Your task to perform on an android device: open app "HBO Max: Stream TV & Movies" (install if not already installed) Image 0: 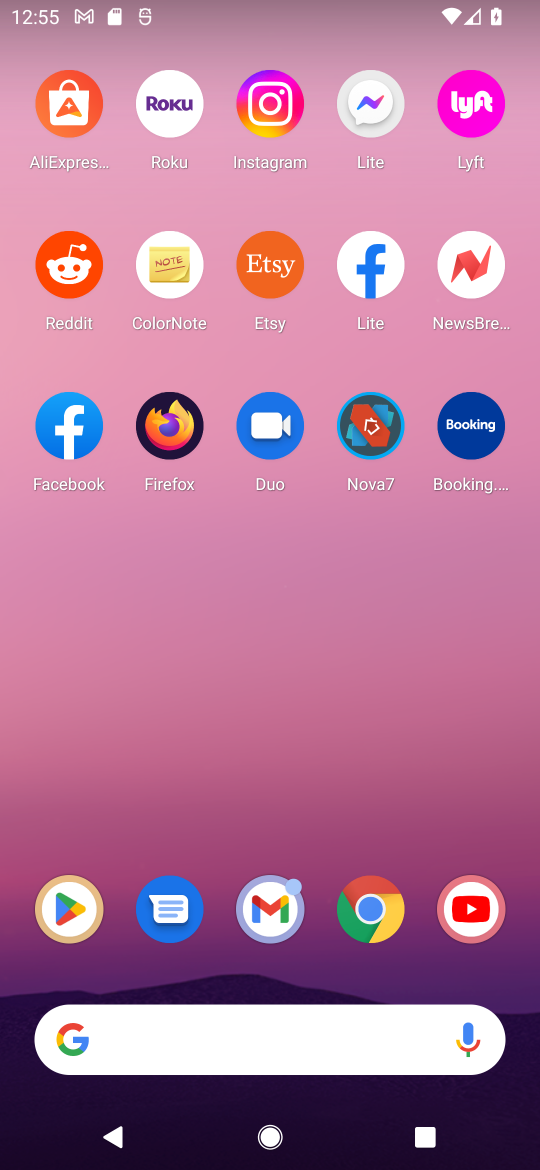
Step 0: click (71, 915)
Your task to perform on an android device: open app "HBO Max: Stream TV & Movies" (install if not already installed) Image 1: 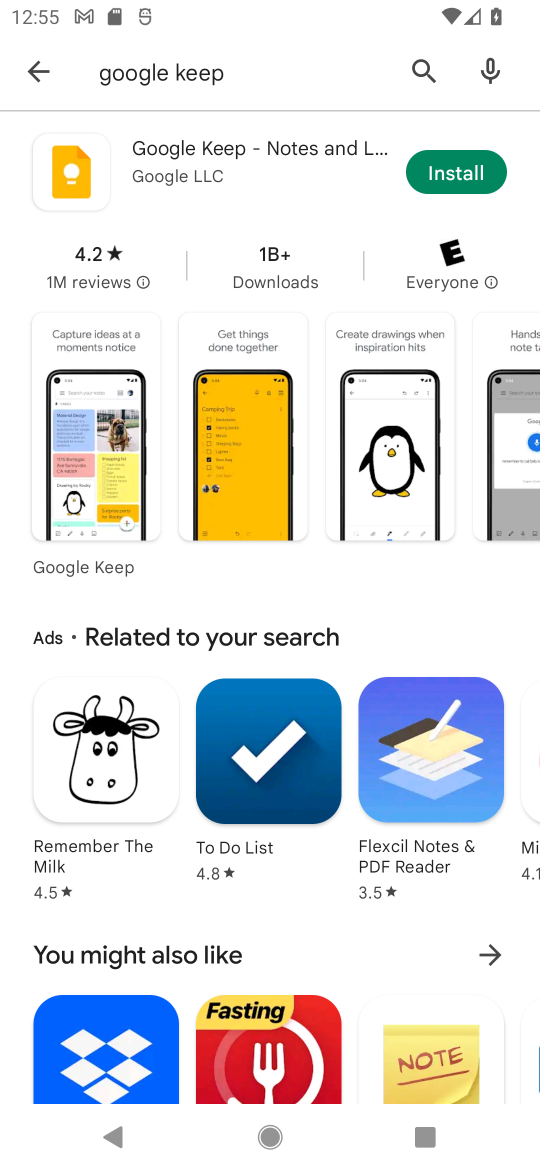
Step 1: click (415, 62)
Your task to perform on an android device: open app "HBO Max: Stream TV & Movies" (install if not already installed) Image 2: 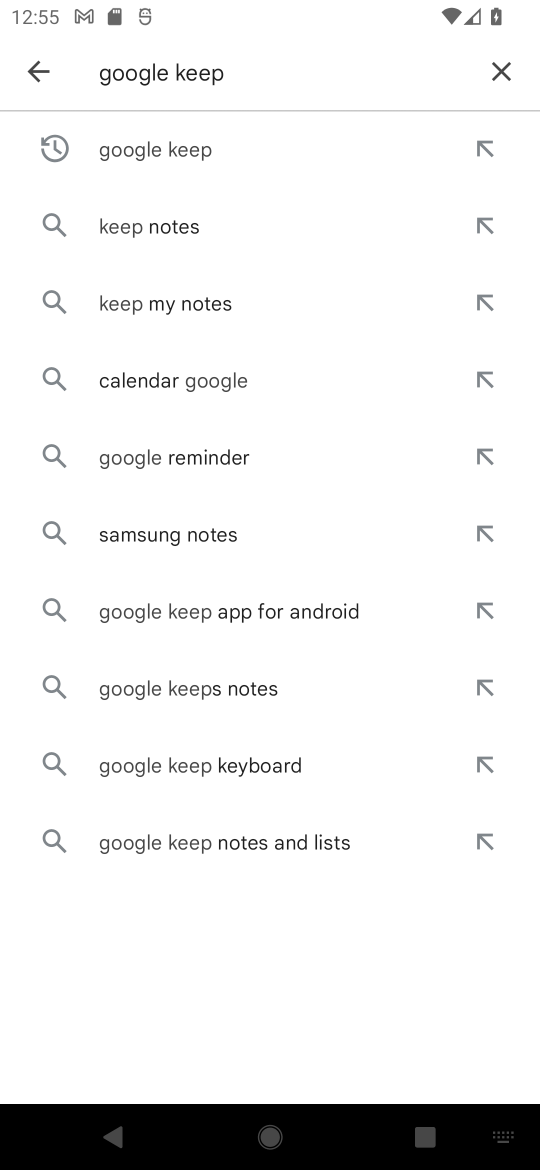
Step 2: click (498, 69)
Your task to perform on an android device: open app "HBO Max: Stream TV & Movies" (install if not already installed) Image 3: 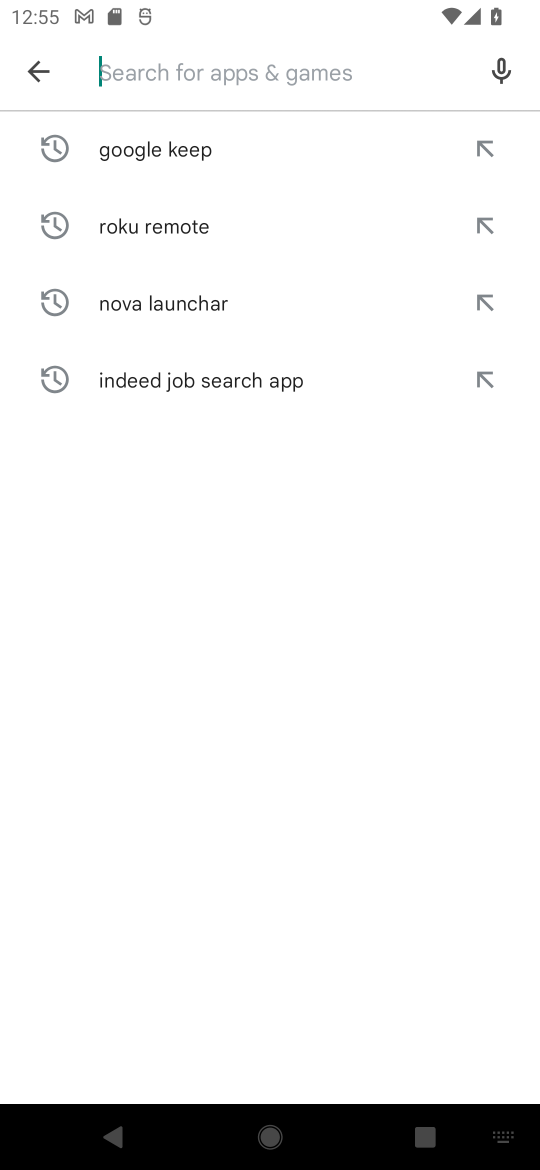
Step 3: type ""HBO Max: Stream TV & Movies"
Your task to perform on an android device: open app "HBO Max: Stream TV & Movies" (install if not already installed) Image 4: 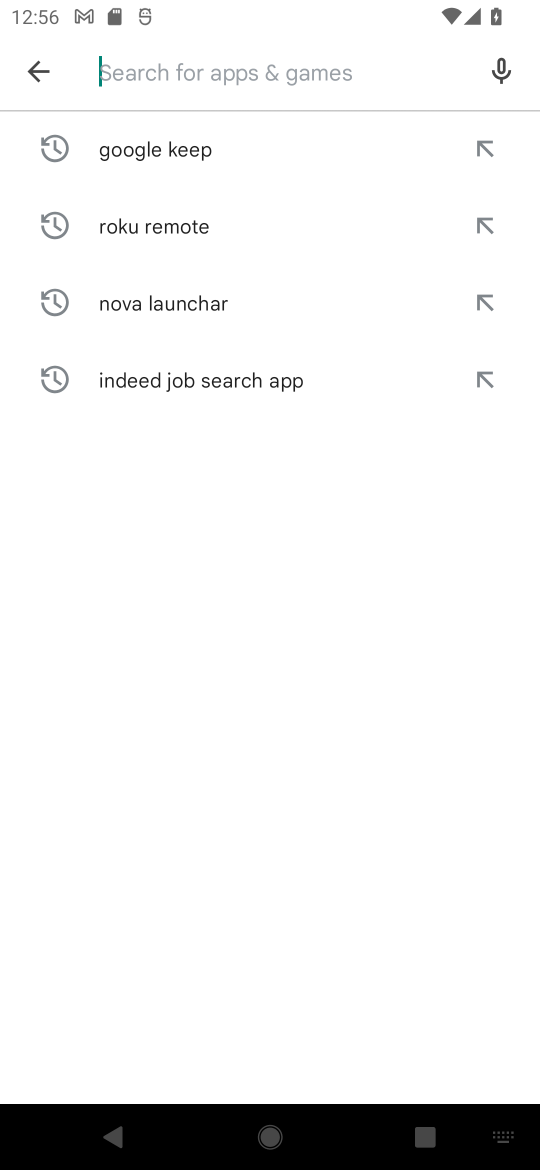
Step 4: type ""HBO Max: Stream TV & Movies"
Your task to perform on an android device: open app "HBO Max: Stream TV & Movies" (install if not already installed) Image 5: 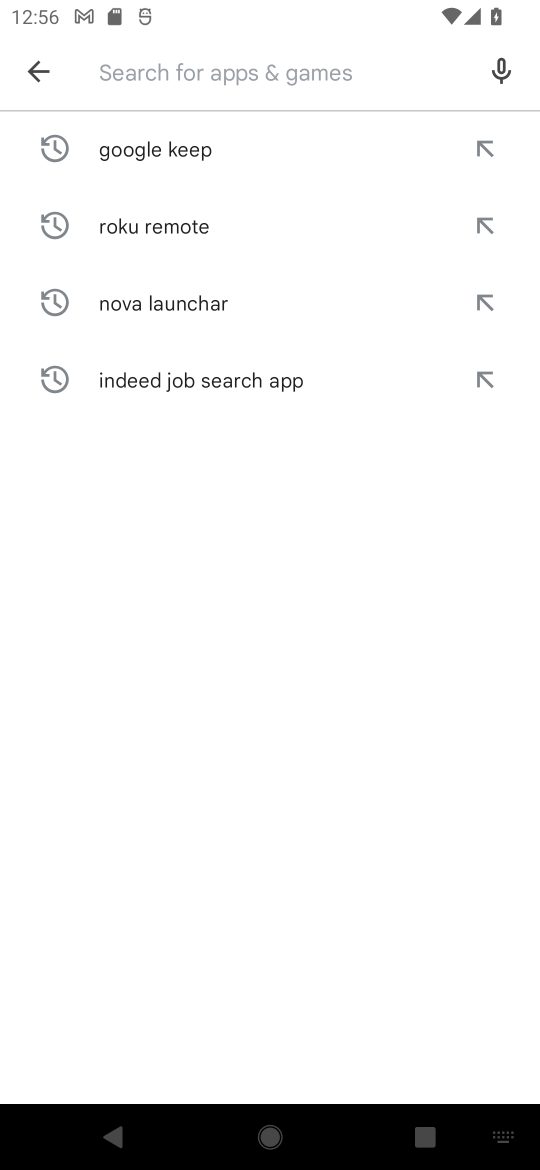
Step 5: type "HBO Max Stream TV&Movies"
Your task to perform on an android device: open app "HBO Max: Stream TV & Movies" (install if not already installed) Image 6: 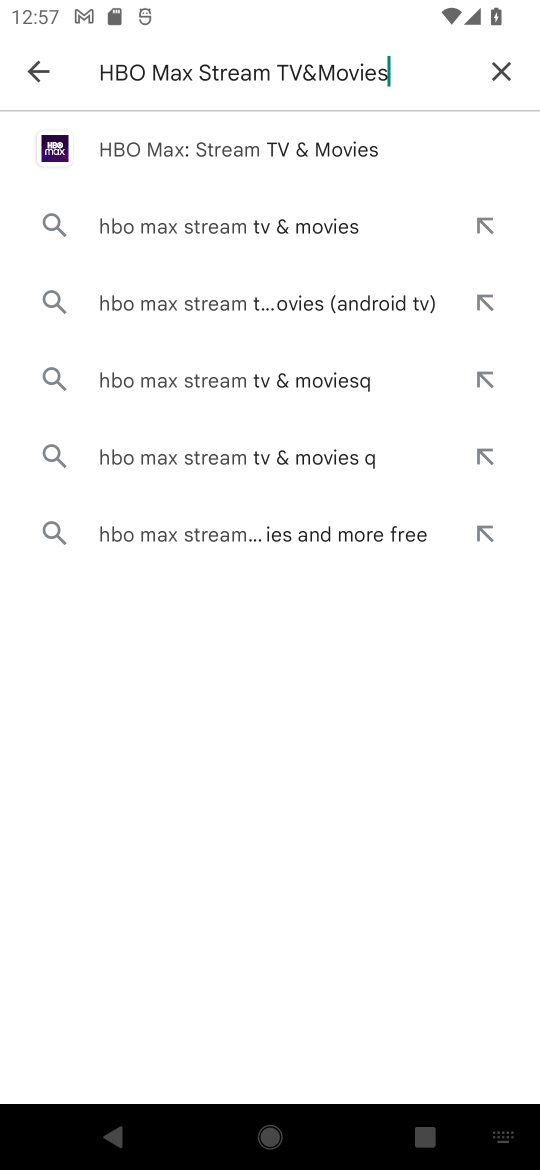
Step 6: click (306, 146)
Your task to perform on an android device: open app "HBO Max: Stream TV & Movies" (install if not already installed) Image 7: 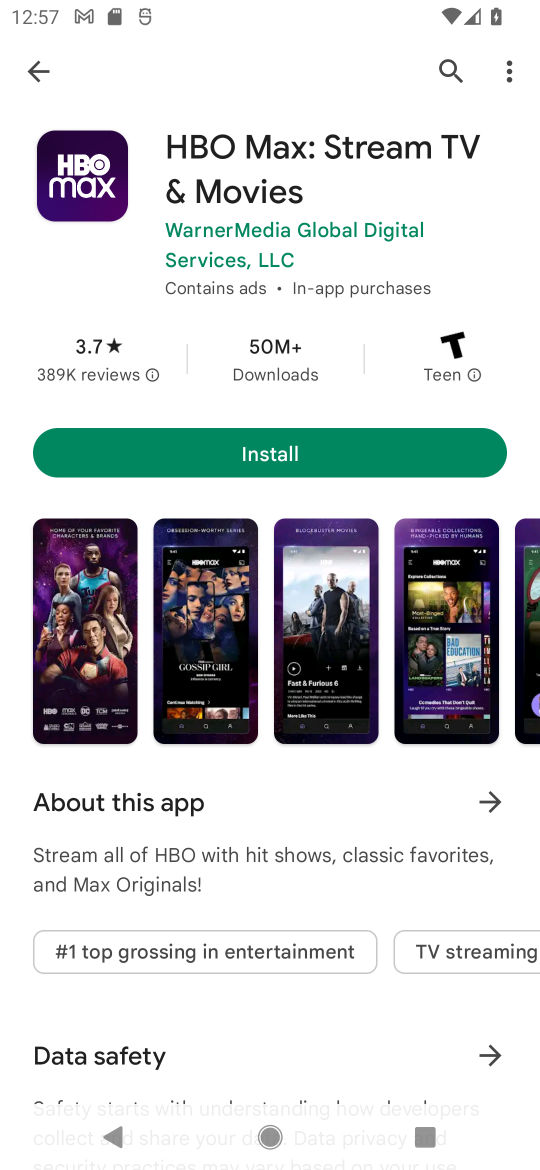
Step 7: click (303, 455)
Your task to perform on an android device: open app "HBO Max: Stream TV & Movies" (install if not already installed) Image 8: 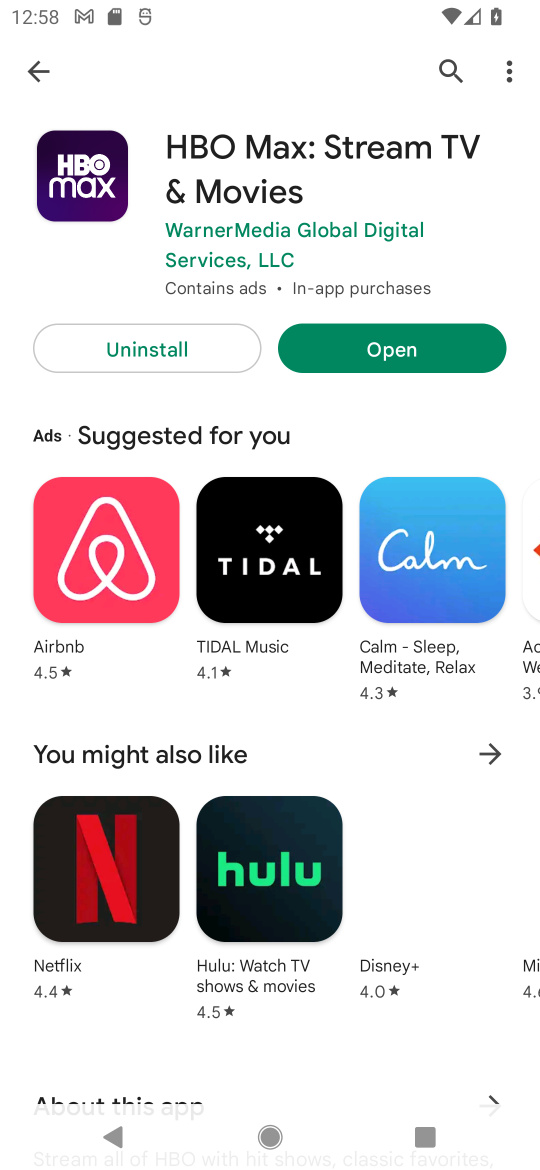
Step 8: click (450, 342)
Your task to perform on an android device: open app "HBO Max: Stream TV & Movies" (install if not already installed) Image 9: 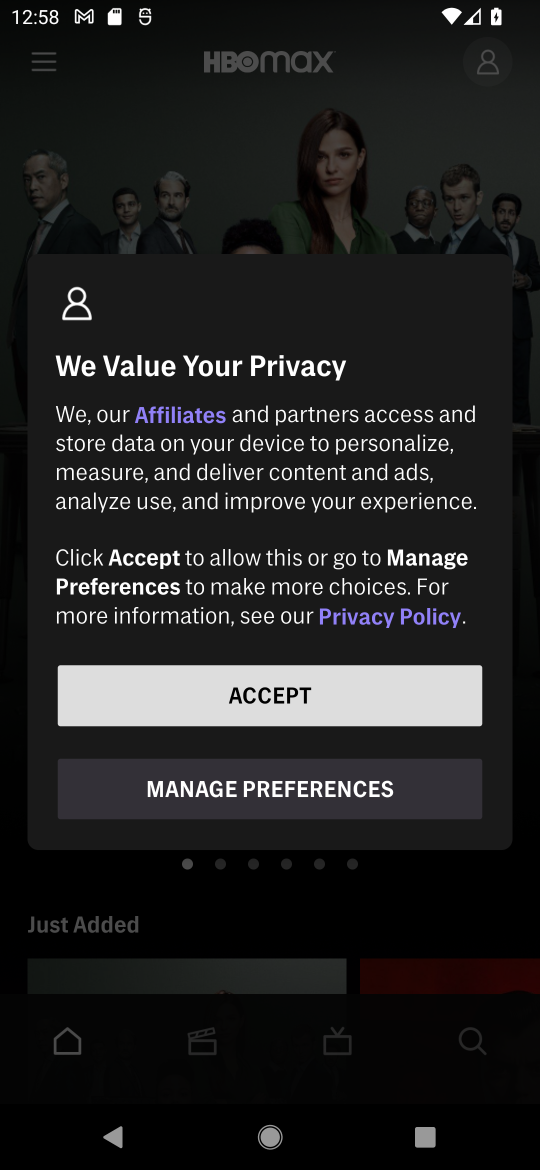
Step 9: task complete